Your task to perform on an android device: clear all cookies in the chrome app Image 0: 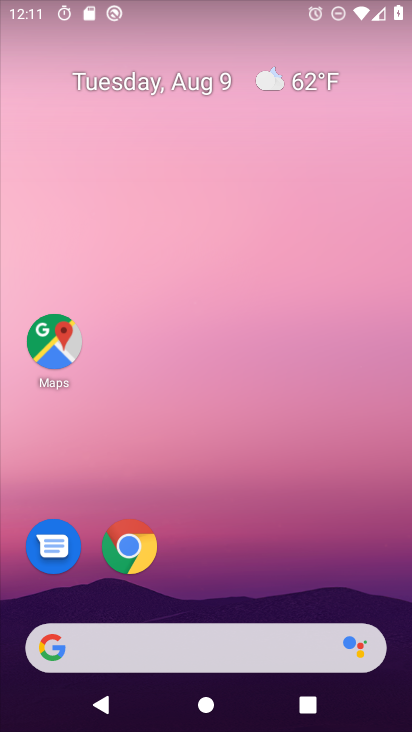
Step 0: press home button
Your task to perform on an android device: clear all cookies in the chrome app Image 1: 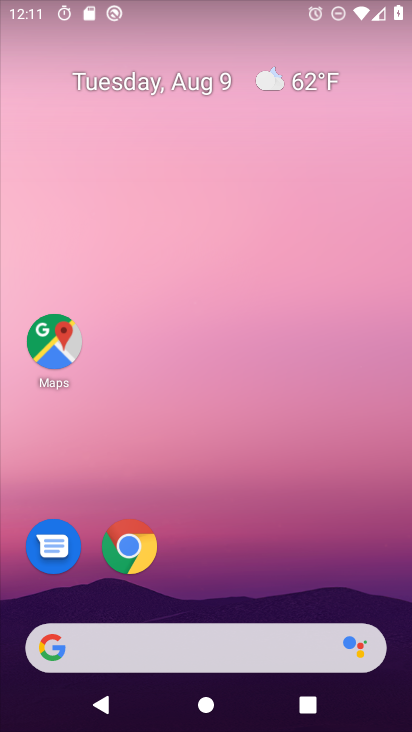
Step 1: drag from (222, 598) to (247, 2)
Your task to perform on an android device: clear all cookies in the chrome app Image 2: 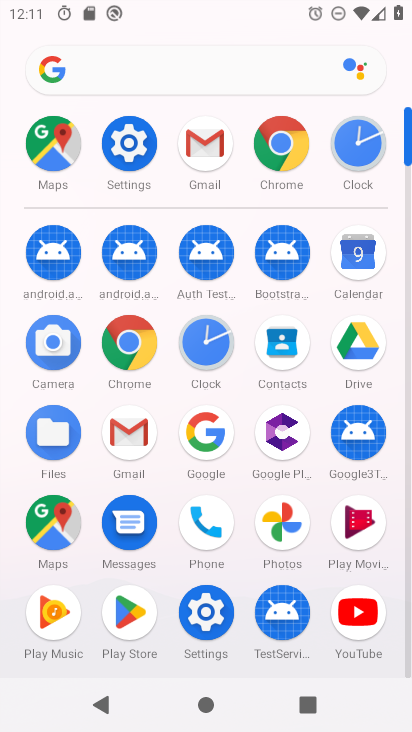
Step 2: click (273, 141)
Your task to perform on an android device: clear all cookies in the chrome app Image 3: 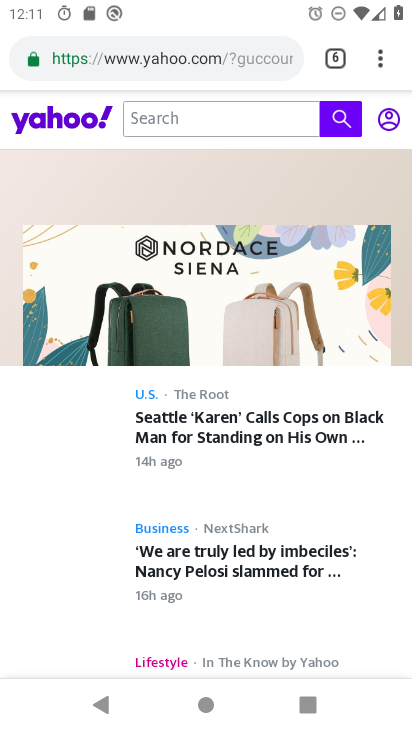
Step 3: click (381, 60)
Your task to perform on an android device: clear all cookies in the chrome app Image 4: 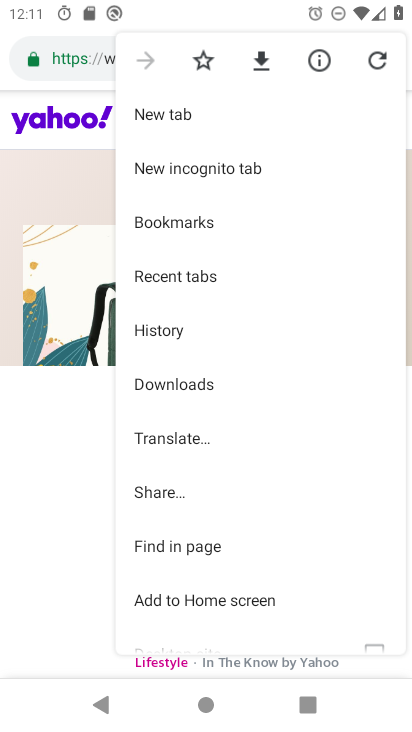
Step 4: drag from (281, 575) to (292, 113)
Your task to perform on an android device: clear all cookies in the chrome app Image 5: 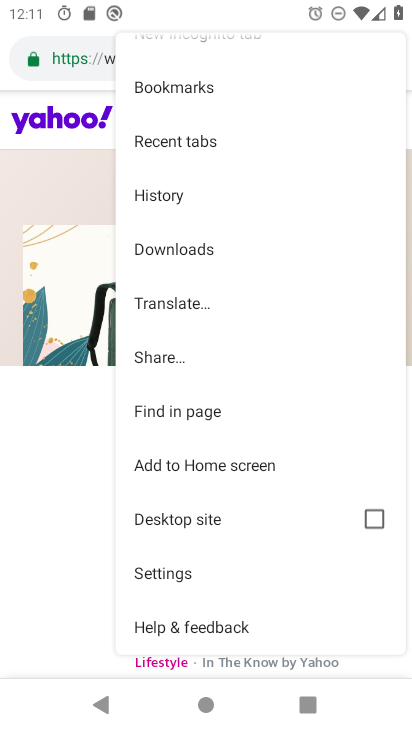
Step 5: click (207, 568)
Your task to perform on an android device: clear all cookies in the chrome app Image 6: 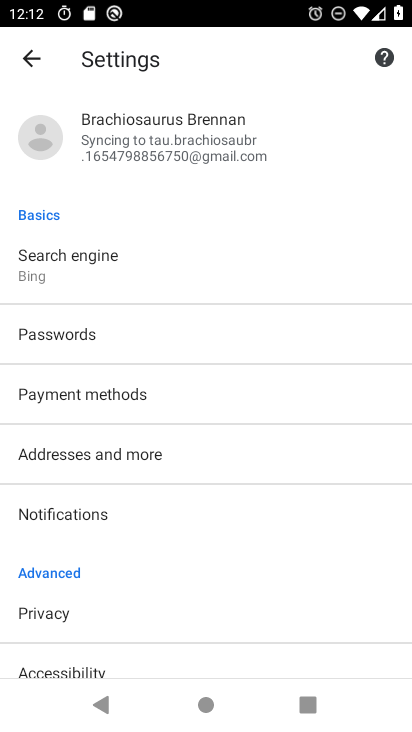
Step 6: drag from (163, 639) to (167, 231)
Your task to perform on an android device: clear all cookies in the chrome app Image 7: 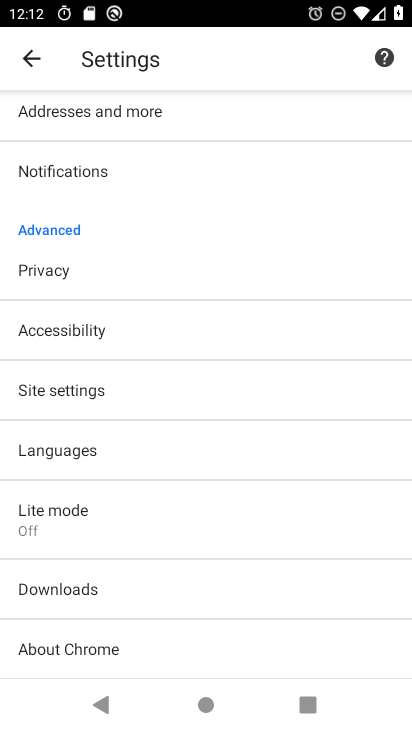
Step 7: click (115, 392)
Your task to perform on an android device: clear all cookies in the chrome app Image 8: 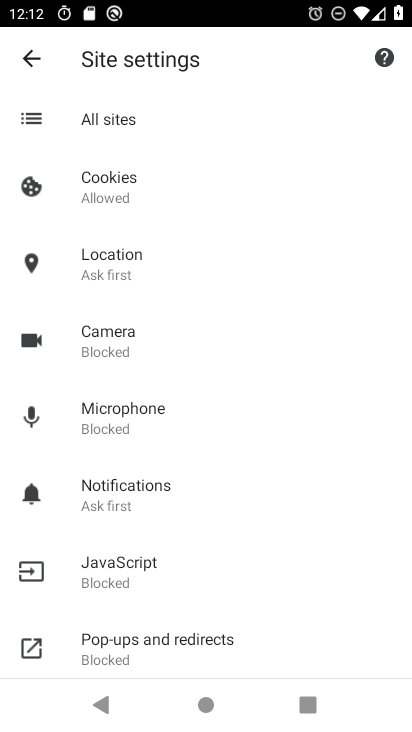
Step 8: click (148, 183)
Your task to perform on an android device: clear all cookies in the chrome app Image 9: 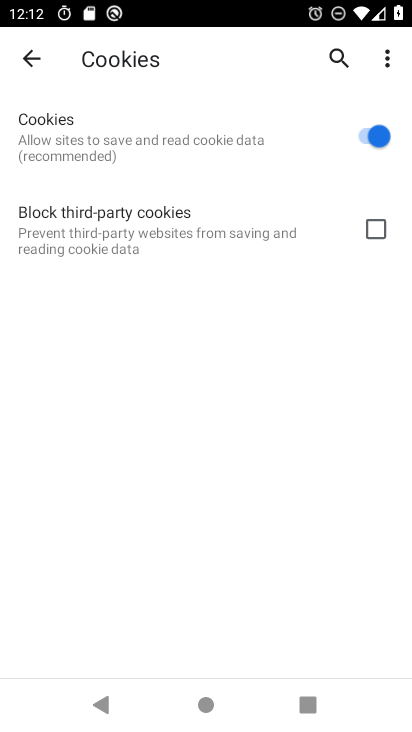
Step 9: task complete